Your task to perform on an android device: find snoozed emails in the gmail app Image 0: 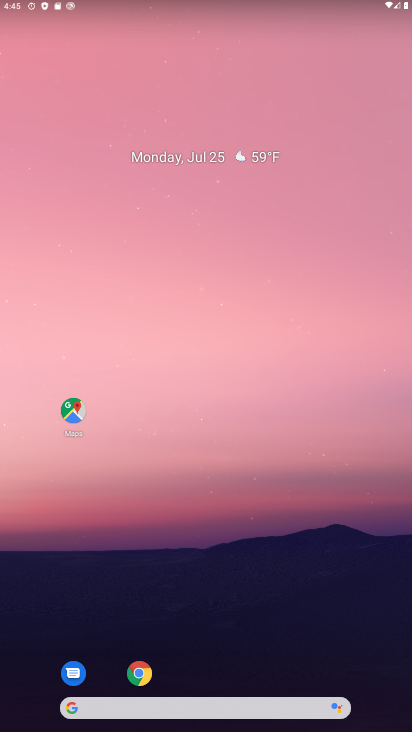
Step 0: drag from (218, 489) to (193, 14)
Your task to perform on an android device: find snoozed emails in the gmail app Image 1: 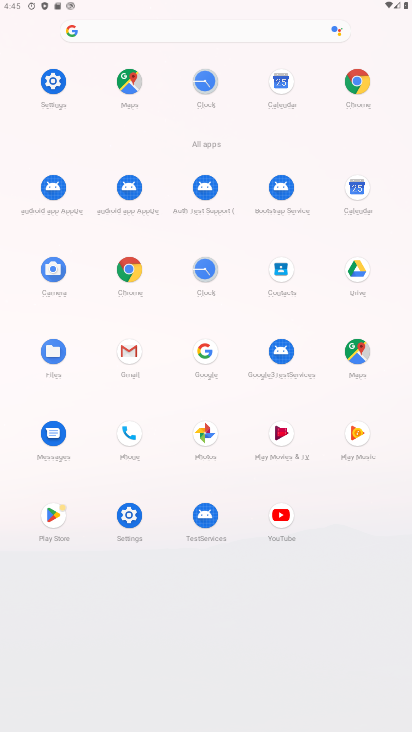
Step 1: click (119, 356)
Your task to perform on an android device: find snoozed emails in the gmail app Image 2: 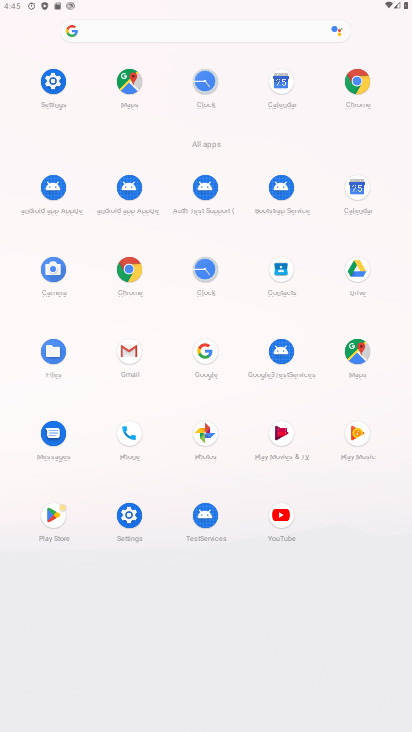
Step 2: click (131, 350)
Your task to perform on an android device: find snoozed emails in the gmail app Image 3: 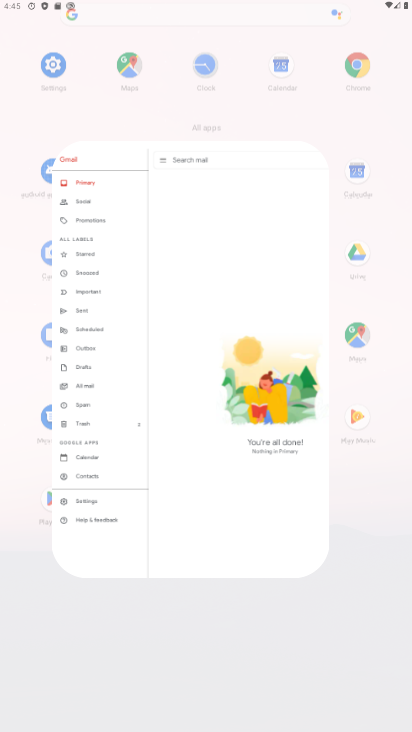
Step 3: click (132, 349)
Your task to perform on an android device: find snoozed emails in the gmail app Image 4: 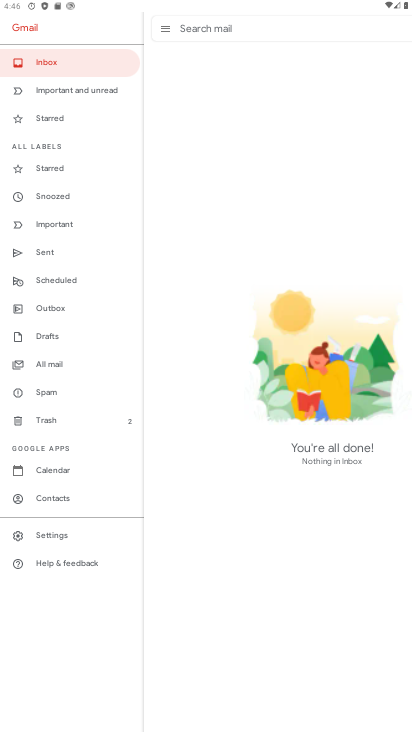
Step 4: click (46, 186)
Your task to perform on an android device: find snoozed emails in the gmail app Image 5: 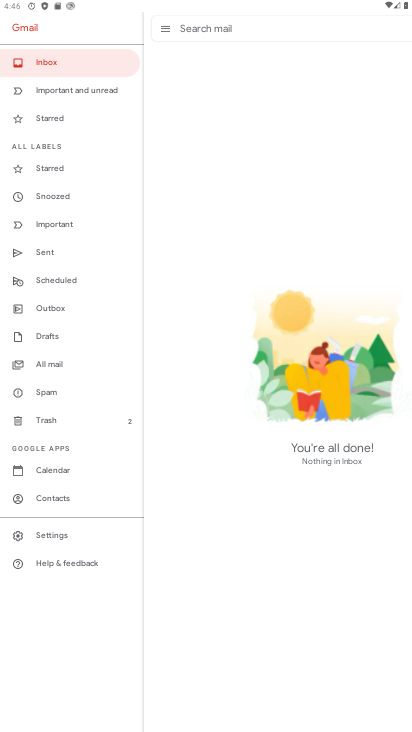
Step 5: click (53, 190)
Your task to perform on an android device: find snoozed emails in the gmail app Image 6: 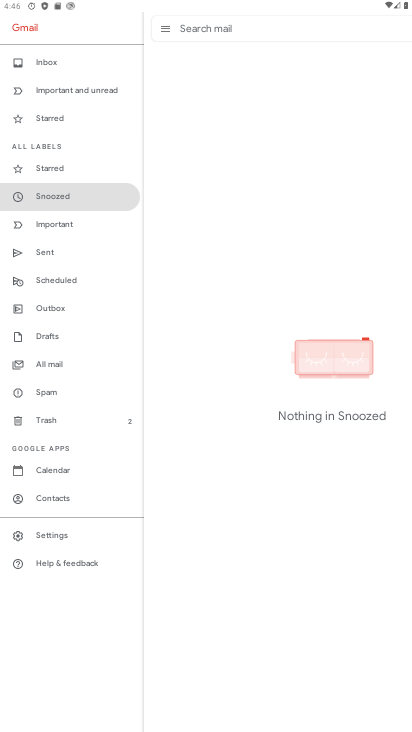
Step 6: task complete